Your task to perform on an android device: Go to Maps Image 0: 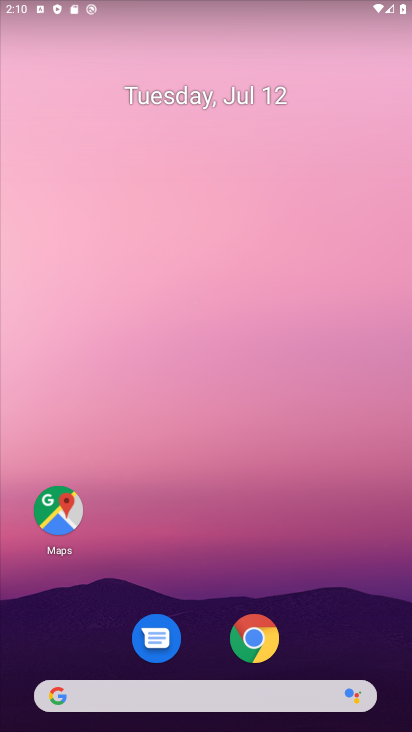
Step 0: click (47, 501)
Your task to perform on an android device: Go to Maps Image 1: 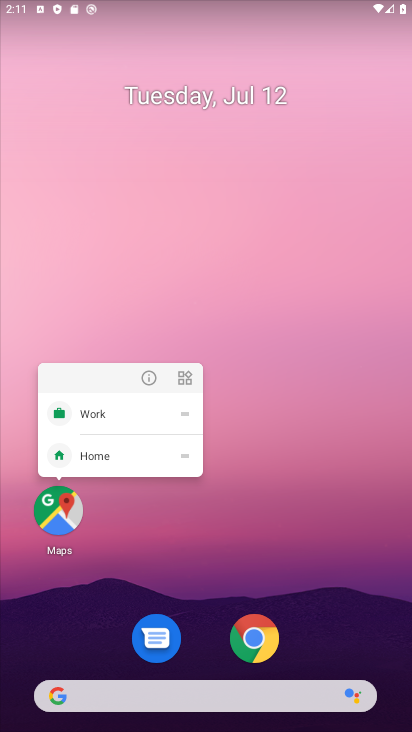
Step 1: click (53, 515)
Your task to perform on an android device: Go to Maps Image 2: 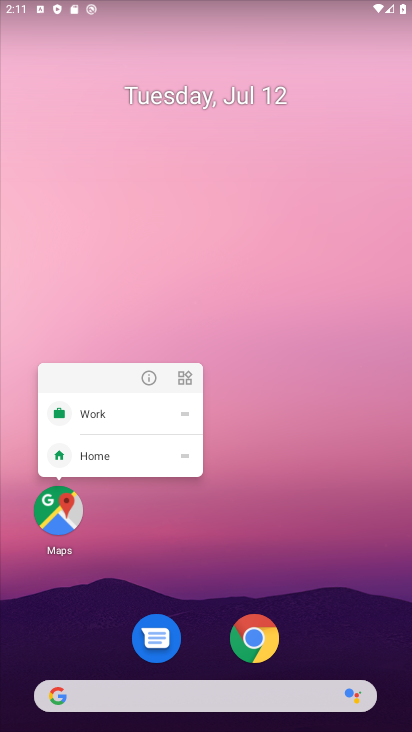
Step 2: click (64, 503)
Your task to perform on an android device: Go to Maps Image 3: 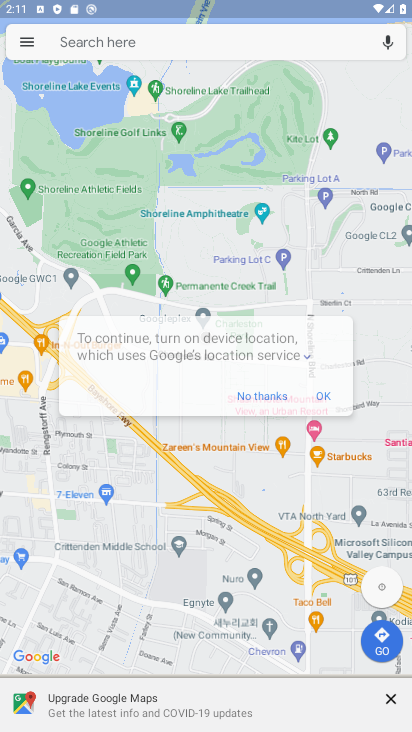
Step 3: task complete